Your task to perform on an android device: Search for "rayovac triple a" on walmart.com, select the first entry, and add it to the cart. Image 0: 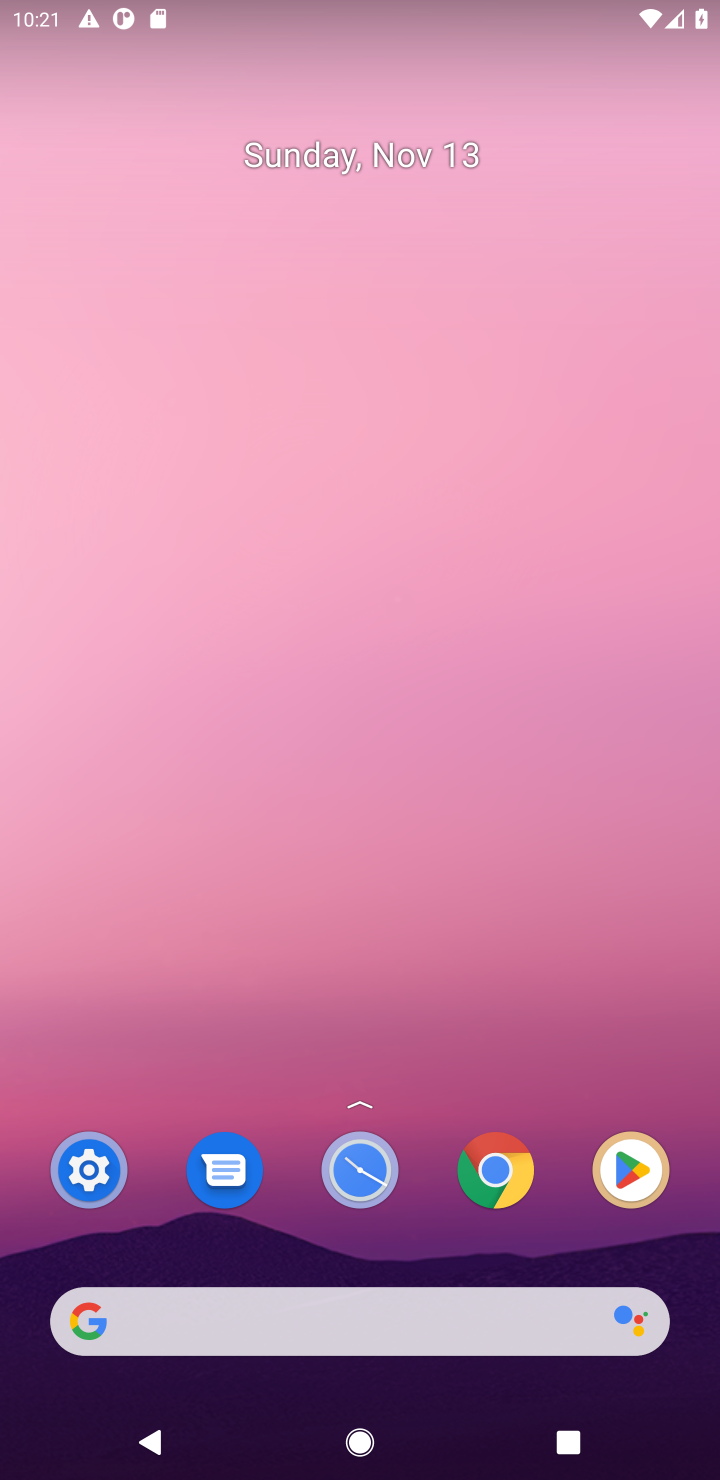
Step 0: click (367, 1330)
Your task to perform on an android device: Search for "rayovac triple a" on walmart.com, select the first entry, and add it to the cart. Image 1: 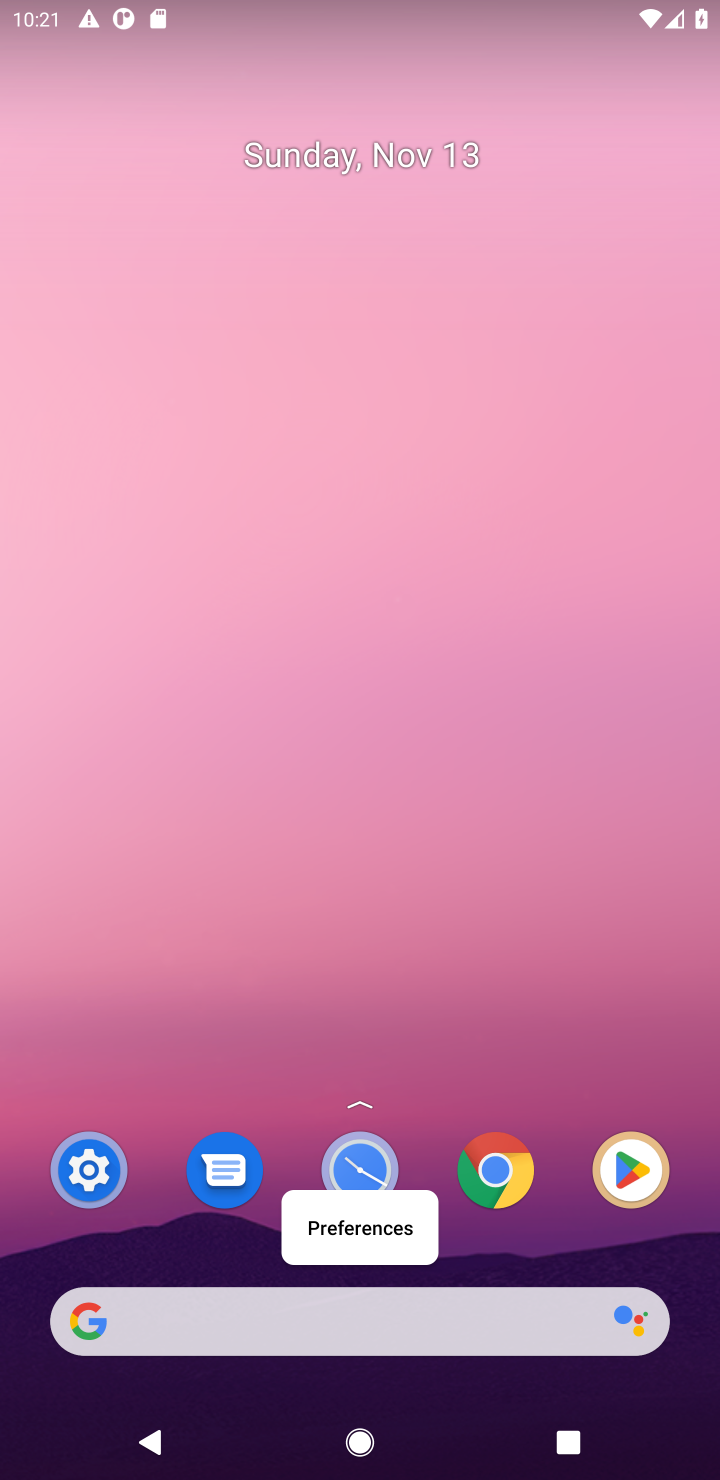
Step 1: type "walmart"
Your task to perform on an android device: Search for "rayovac triple a" on walmart.com, select the first entry, and add it to the cart. Image 2: 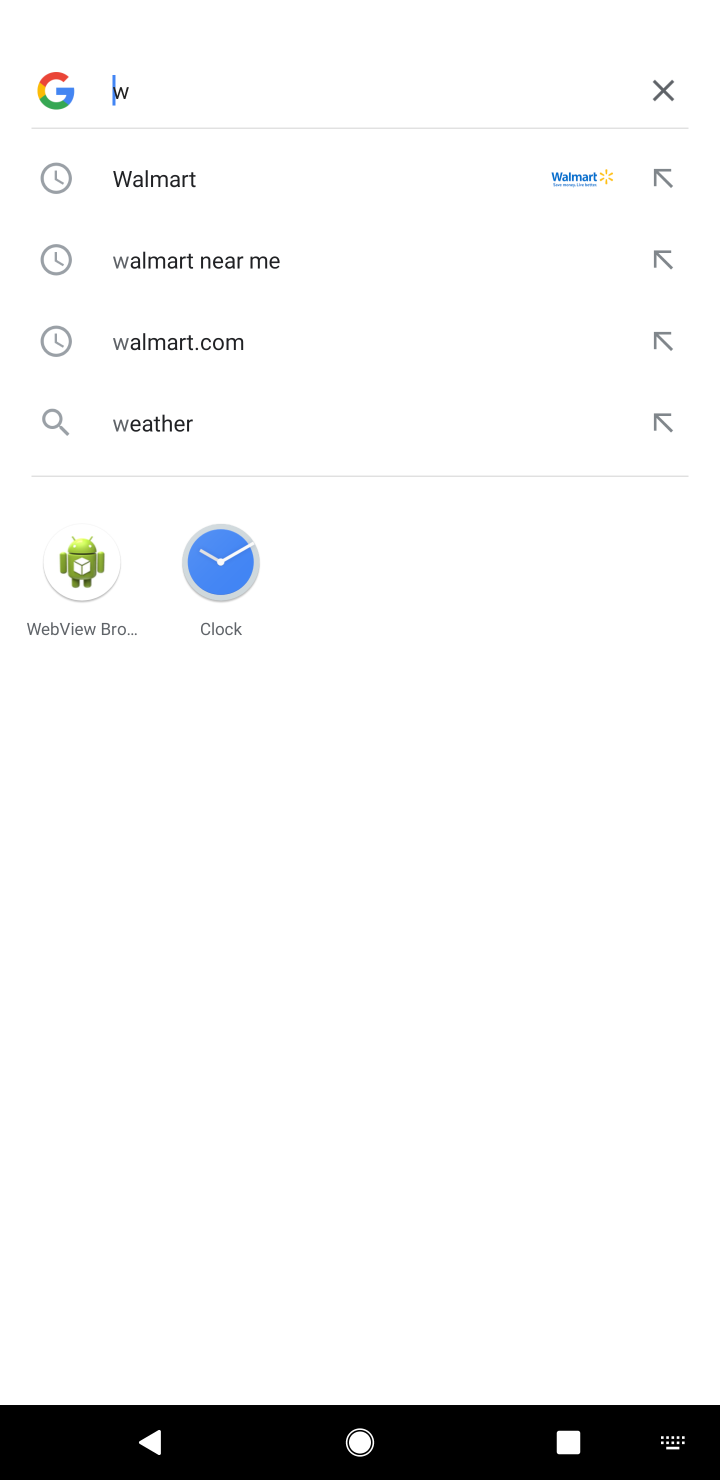
Step 2: click (165, 180)
Your task to perform on an android device: Search for "rayovac triple a" on walmart.com, select the first entry, and add it to the cart. Image 3: 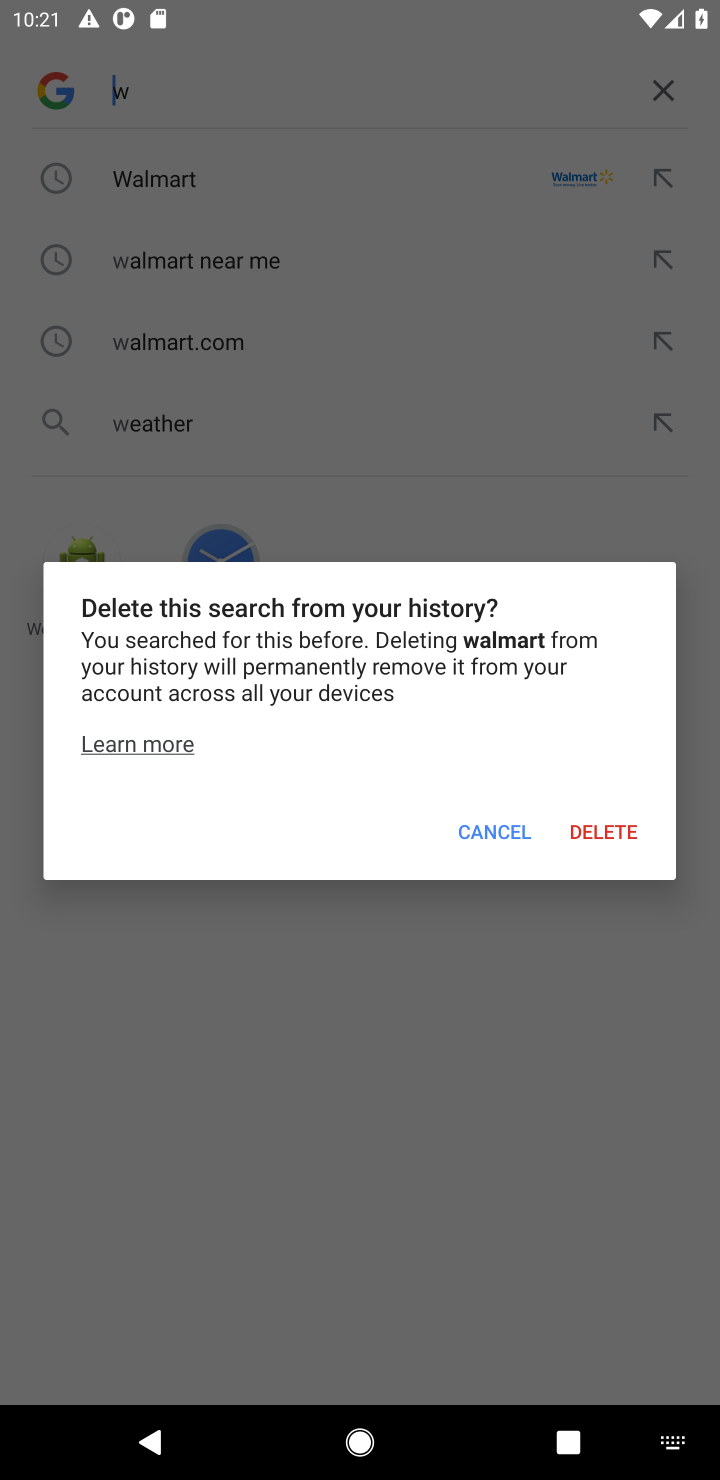
Step 3: click (497, 853)
Your task to perform on an android device: Search for "rayovac triple a" on walmart.com, select the first entry, and add it to the cart. Image 4: 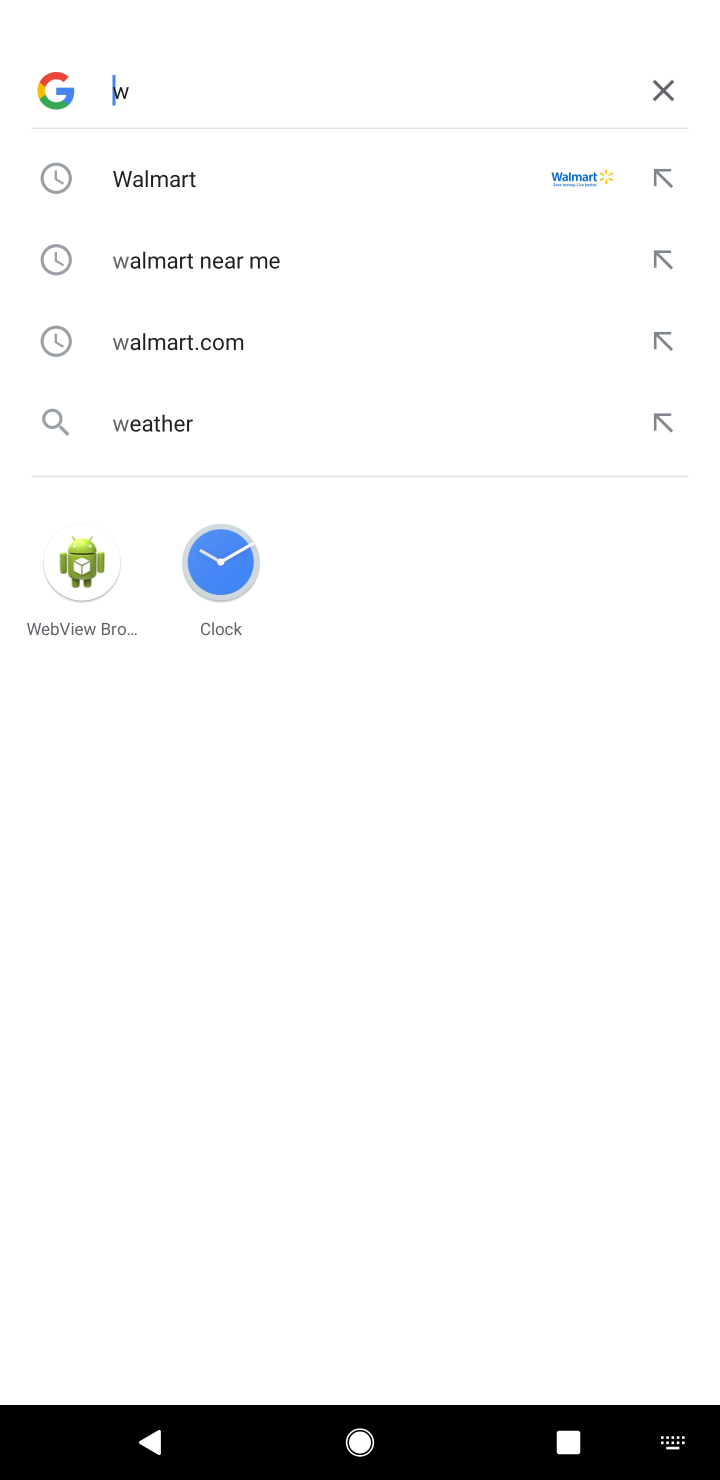
Step 4: click (325, 206)
Your task to perform on an android device: Search for "rayovac triple a" on walmart.com, select the first entry, and add it to the cart. Image 5: 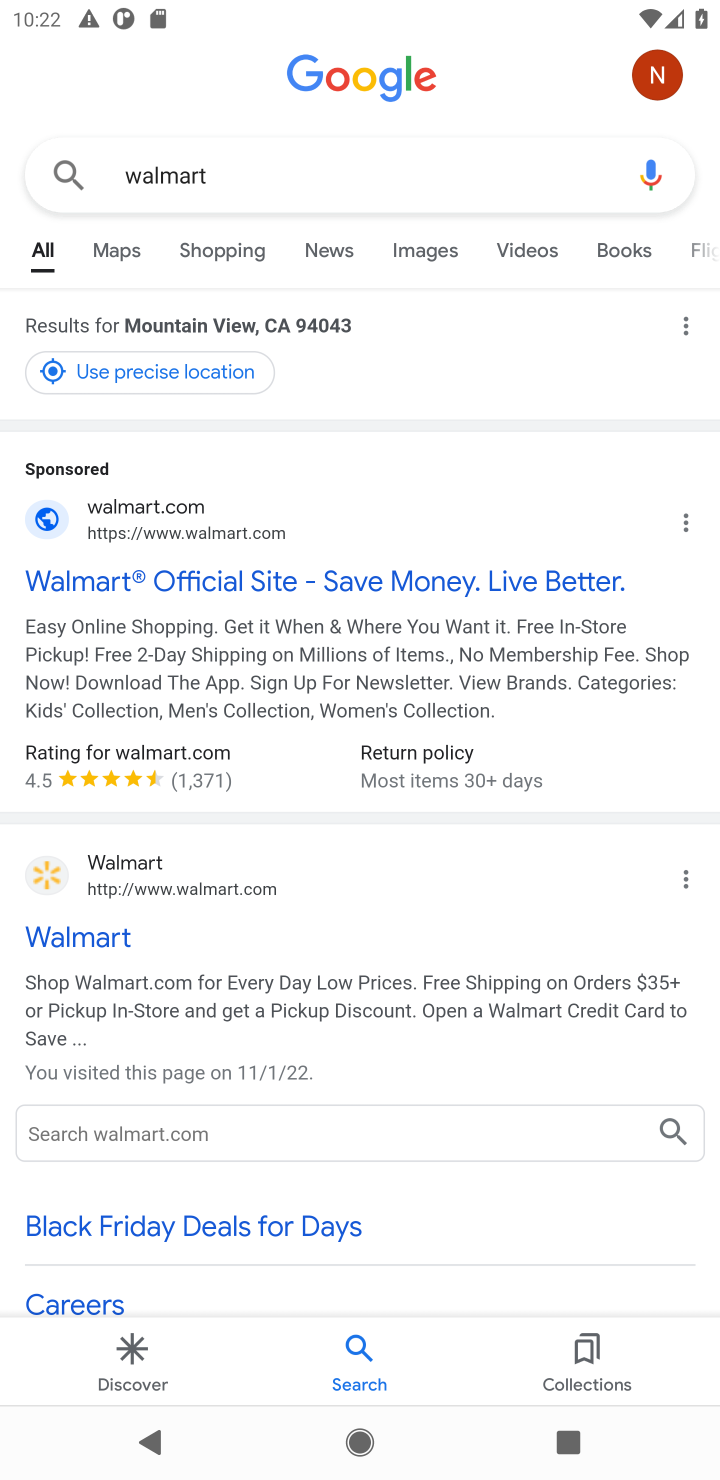
Step 5: click (133, 596)
Your task to perform on an android device: Search for "rayovac triple a" on walmart.com, select the first entry, and add it to the cart. Image 6: 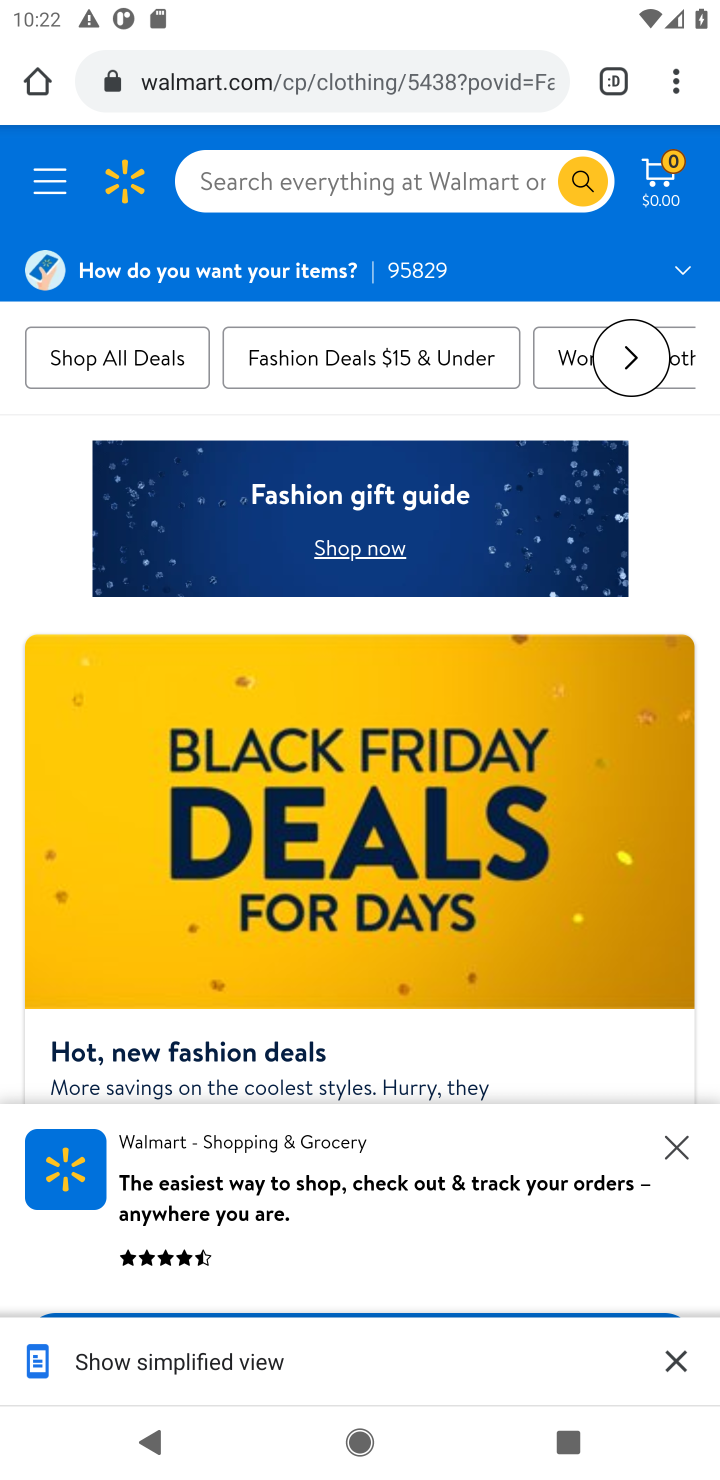
Step 6: click (294, 181)
Your task to perform on an android device: Search for "rayovac triple a" on walmart.com, select the first entry, and add it to the cart. Image 7: 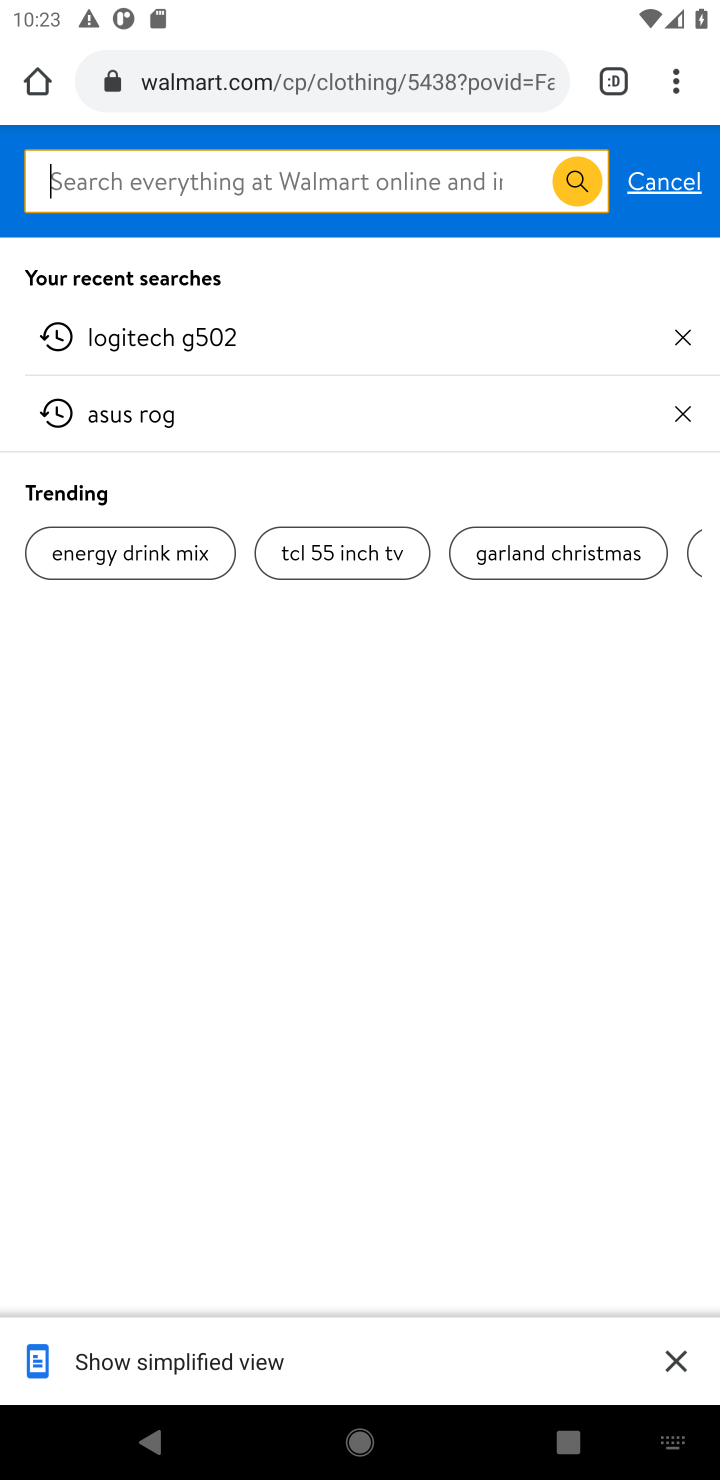
Step 7: type "rayovac triple aa"
Your task to perform on an android device: Search for "rayovac triple a" on walmart.com, select the first entry, and add it to the cart. Image 8: 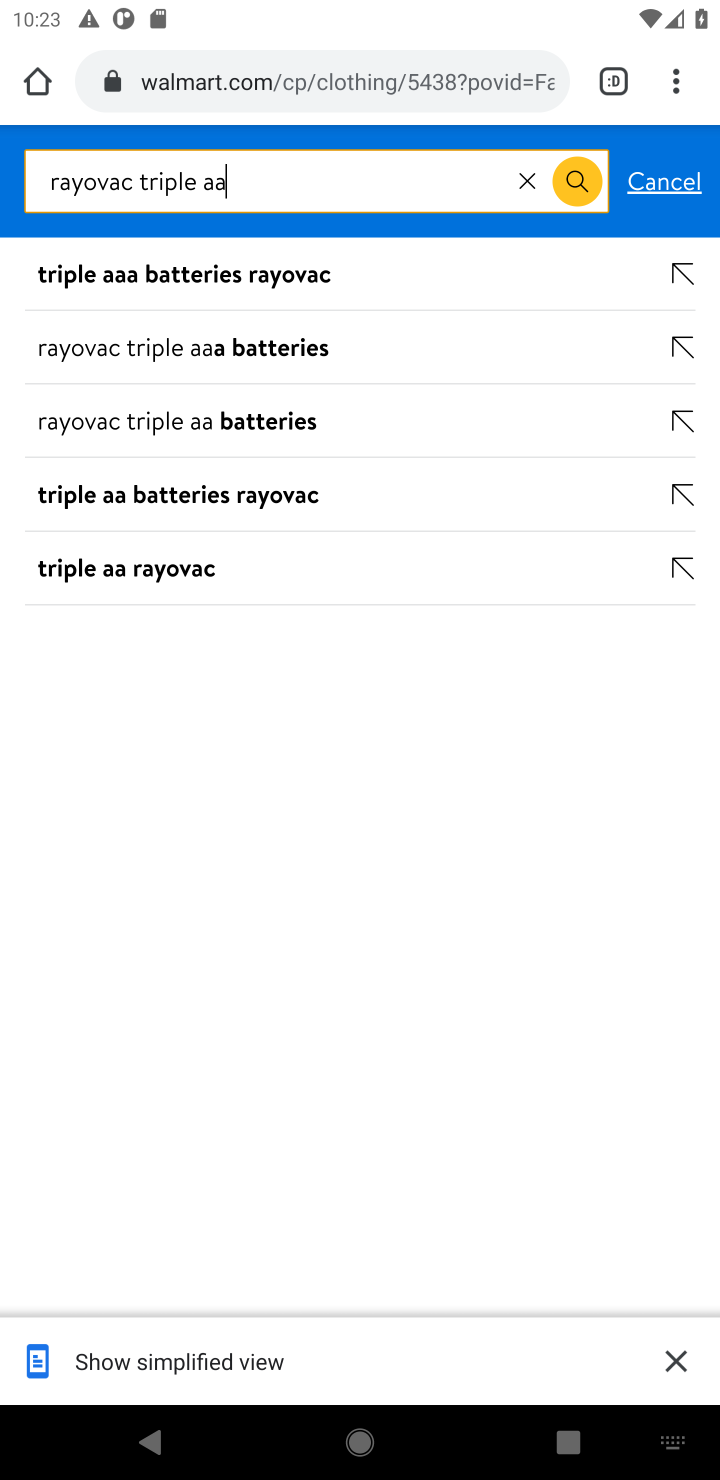
Step 8: click (263, 272)
Your task to perform on an android device: Search for "rayovac triple a" on walmart.com, select the first entry, and add it to the cart. Image 9: 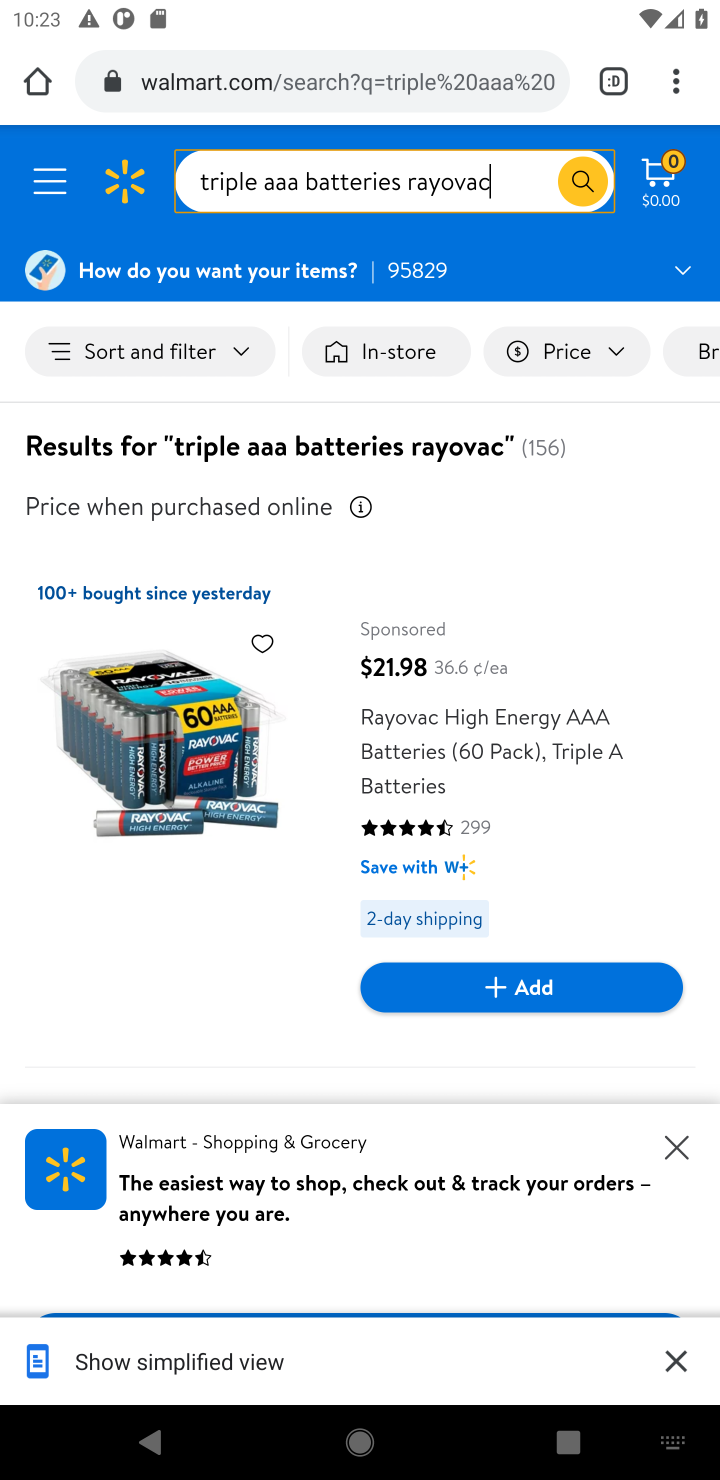
Step 9: click (513, 1007)
Your task to perform on an android device: Search for "rayovac triple a" on walmart.com, select the first entry, and add it to the cart. Image 10: 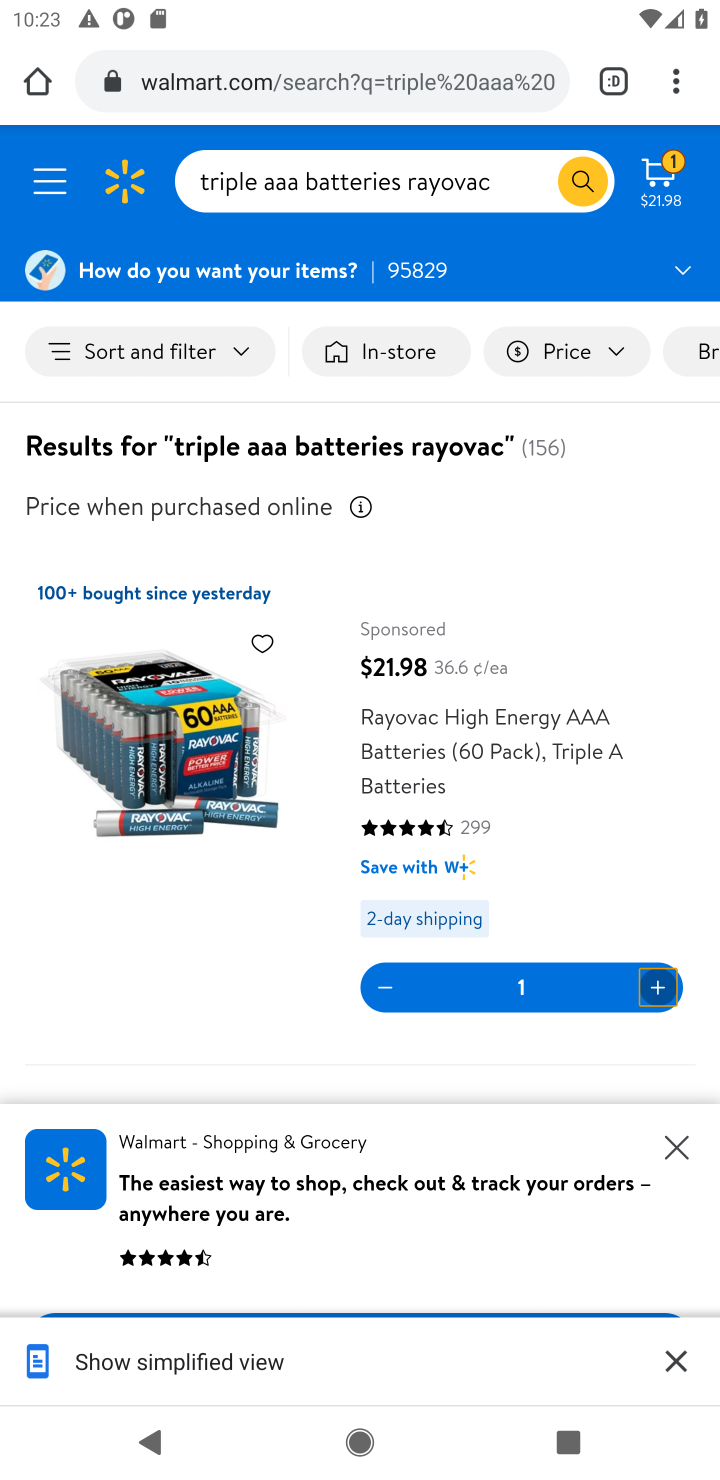
Step 10: task complete